Your task to perform on an android device: toggle wifi Image 0: 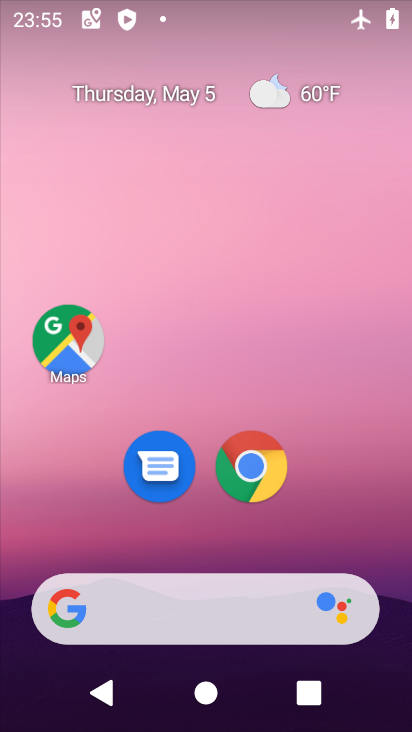
Step 0: drag from (248, 570) to (296, 205)
Your task to perform on an android device: toggle wifi Image 1: 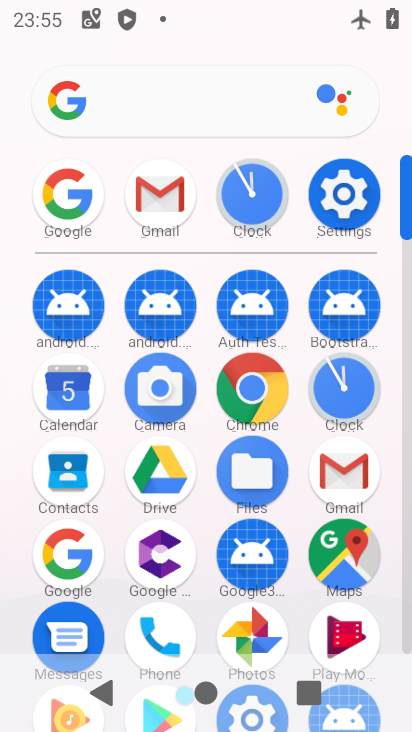
Step 1: click (342, 199)
Your task to perform on an android device: toggle wifi Image 2: 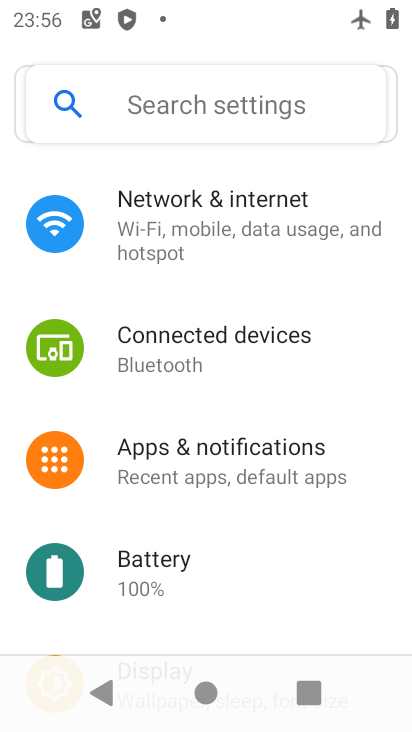
Step 2: click (189, 243)
Your task to perform on an android device: toggle wifi Image 3: 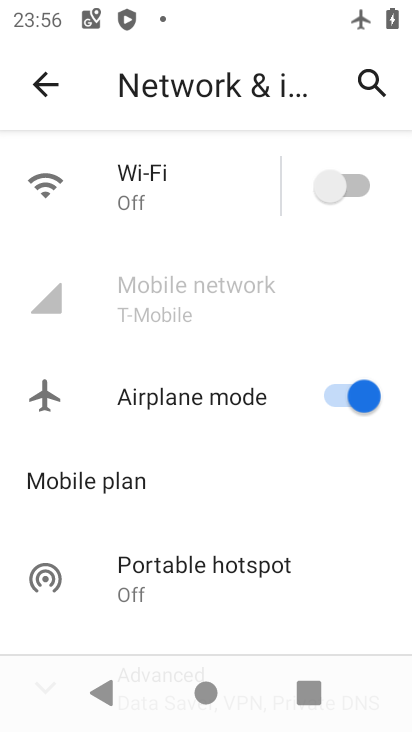
Step 3: click (356, 182)
Your task to perform on an android device: toggle wifi Image 4: 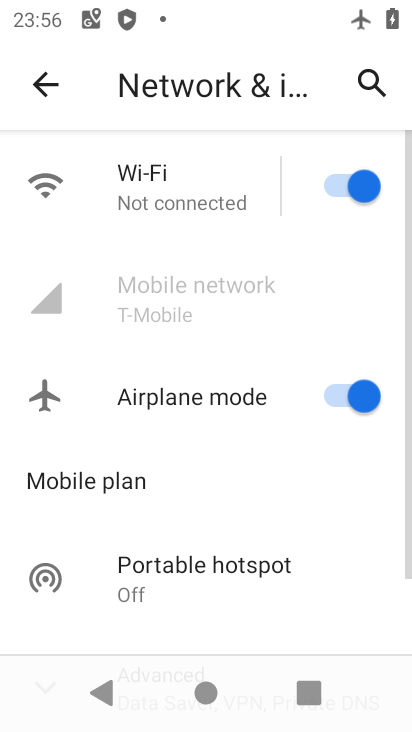
Step 4: task complete